Your task to perform on an android device: Go to Wikipedia Image 0: 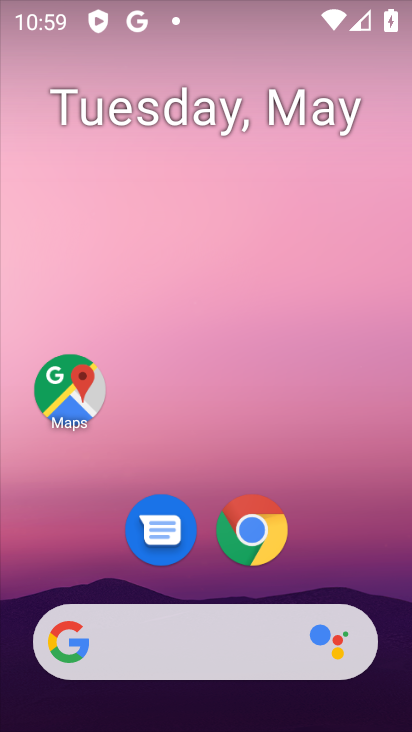
Step 0: click (253, 530)
Your task to perform on an android device: Go to Wikipedia Image 1: 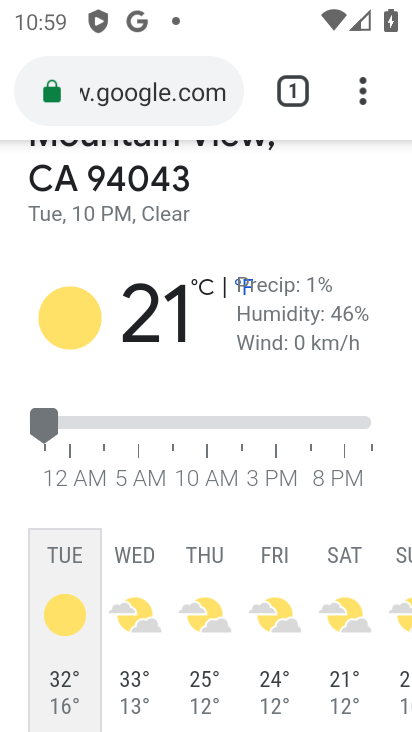
Step 1: click (155, 97)
Your task to perform on an android device: Go to Wikipedia Image 2: 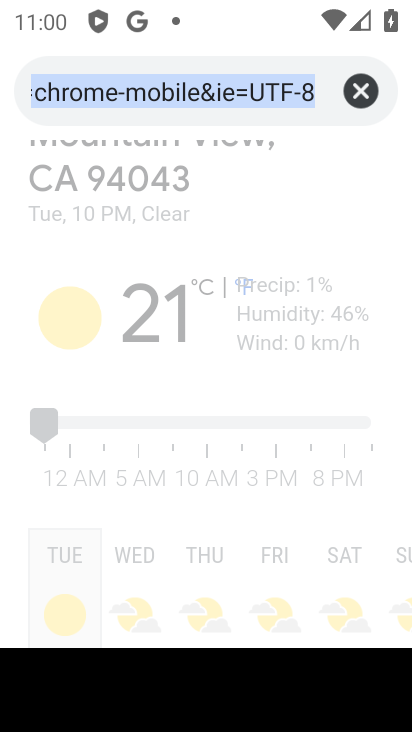
Step 2: type "wikipedia"
Your task to perform on an android device: Go to Wikipedia Image 3: 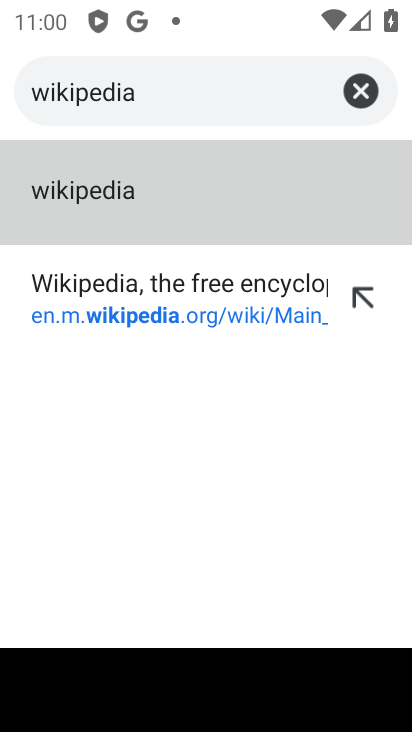
Step 3: click (255, 323)
Your task to perform on an android device: Go to Wikipedia Image 4: 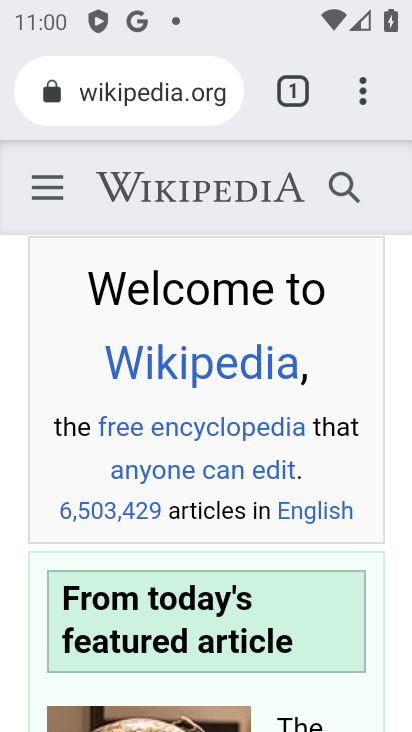
Step 4: task complete